Your task to perform on an android device: Go to Google Image 0: 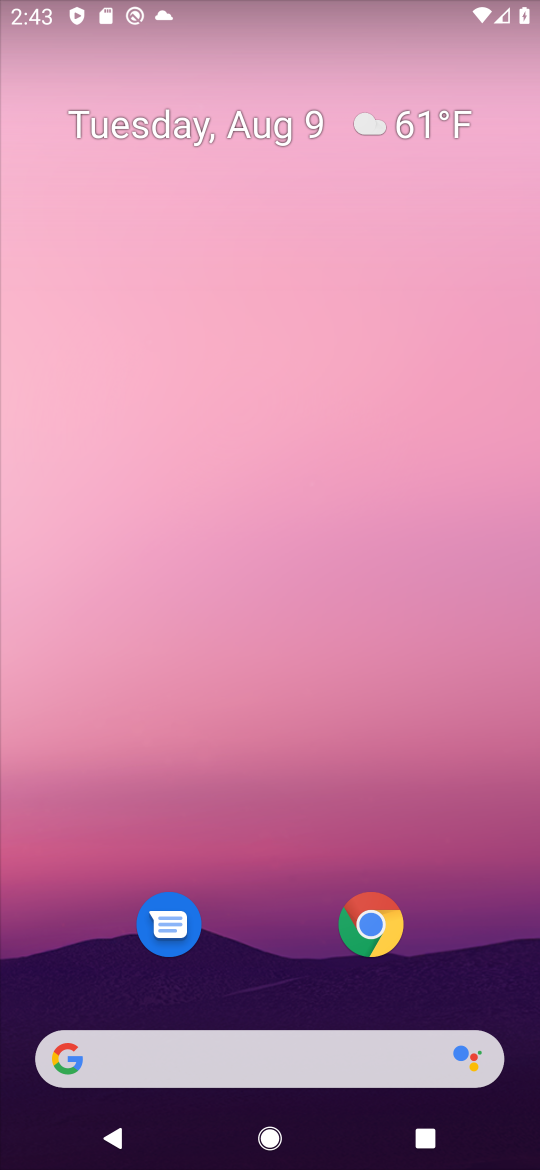
Step 0: click (277, 1065)
Your task to perform on an android device: Go to Google Image 1: 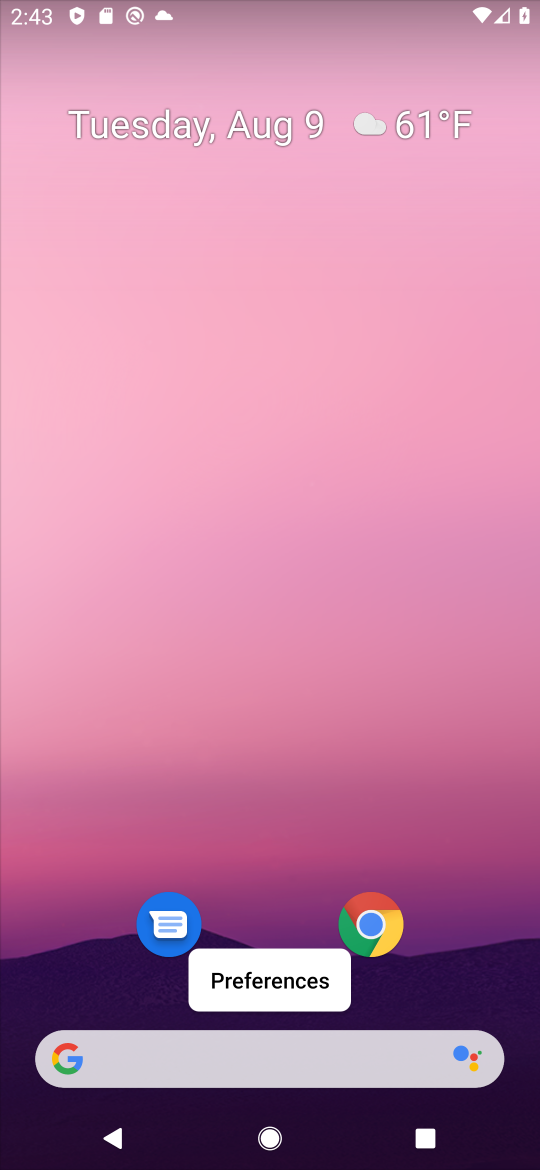
Step 1: click (277, 1065)
Your task to perform on an android device: Go to Google Image 2: 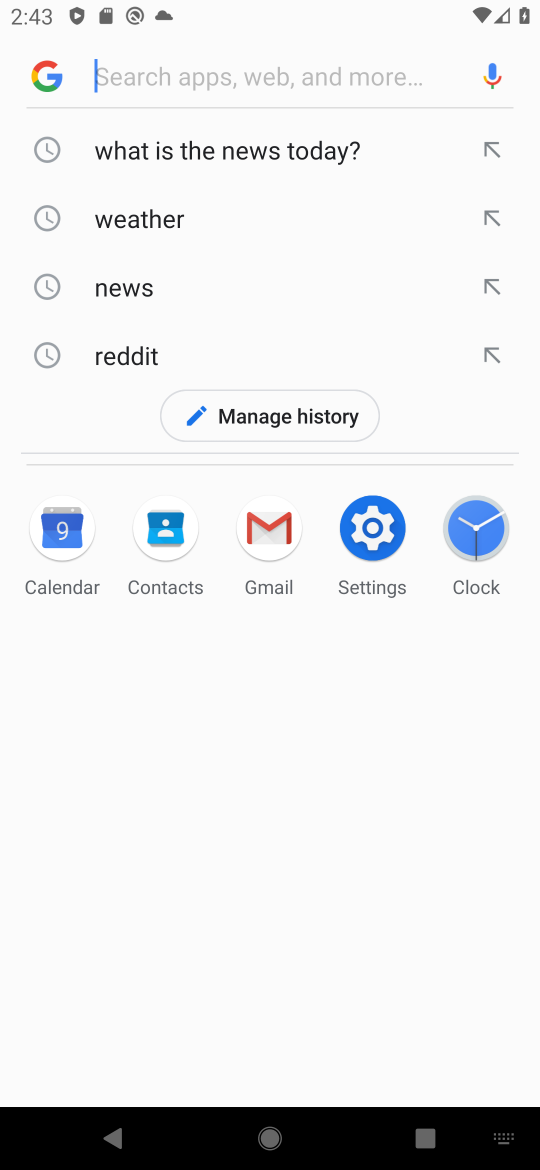
Step 2: click (46, 85)
Your task to perform on an android device: Go to Google Image 3: 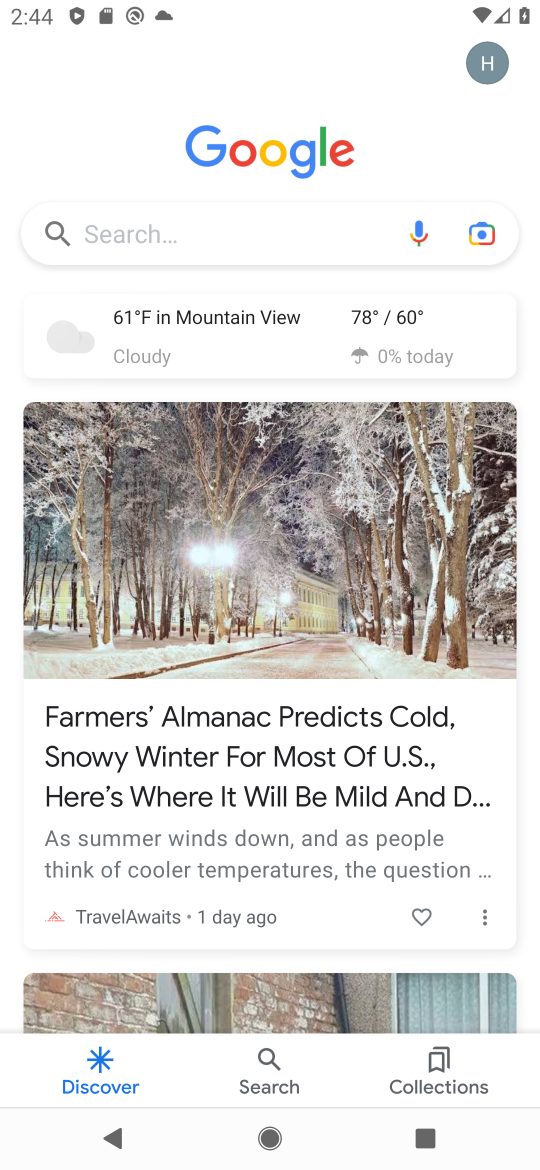
Step 3: task complete